Your task to perform on an android device: turn notification dots on Image 0: 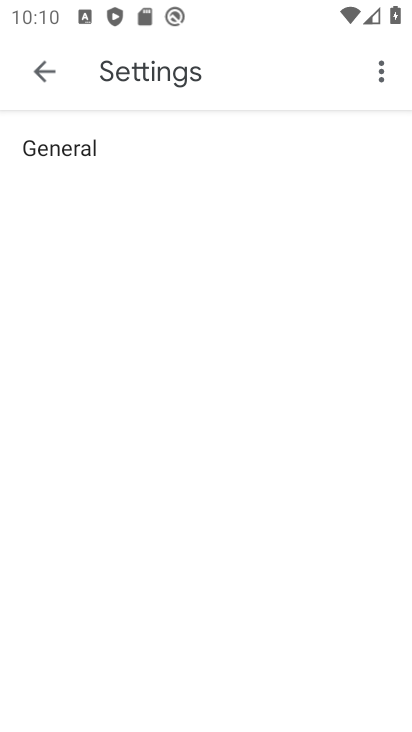
Step 0: press home button
Your task to perform on an android device: turn notification dots on Image 1: 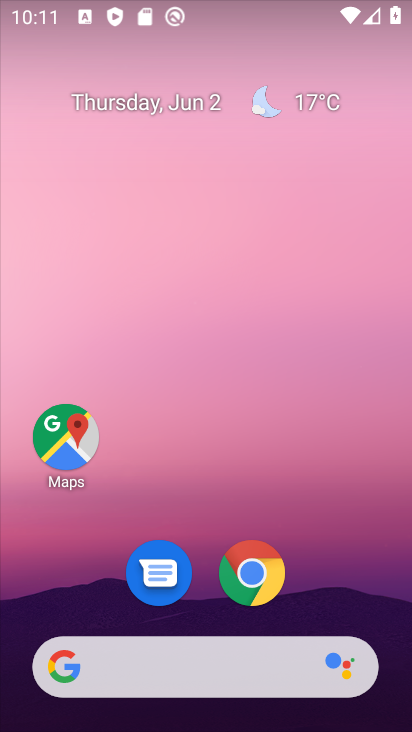
Step 1: drag from (354, 602) to (261, 91)
Your task to perform on an android device: turn notification dots on Image 2: 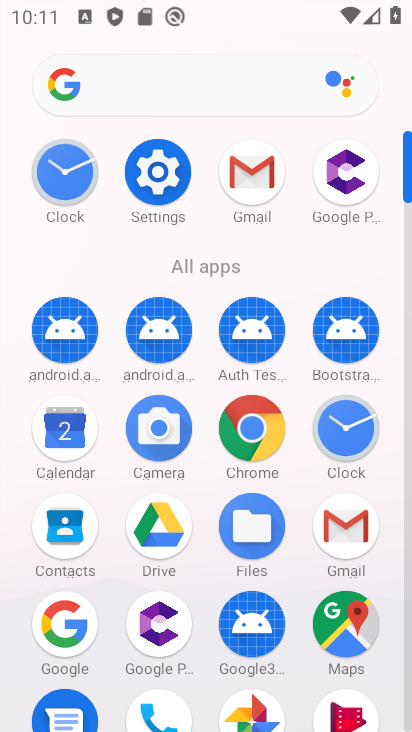
Step 2: click (172, 170)
Your task to perform on an android device: turn notification dots on Image 3: 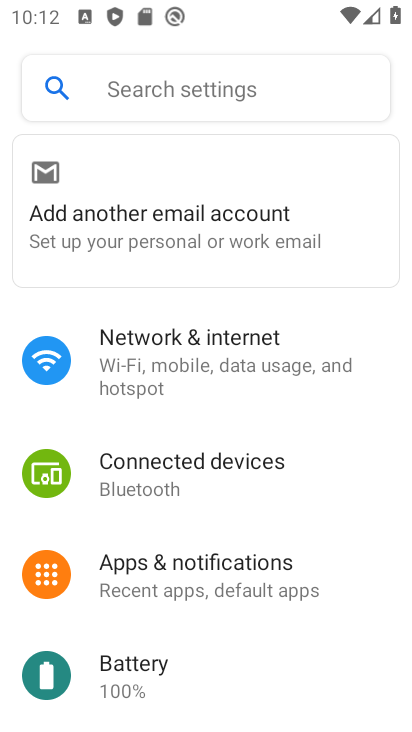
Step 3: click (270, 575)
Your task to perform on an android device: turn notification dots on Image 4: 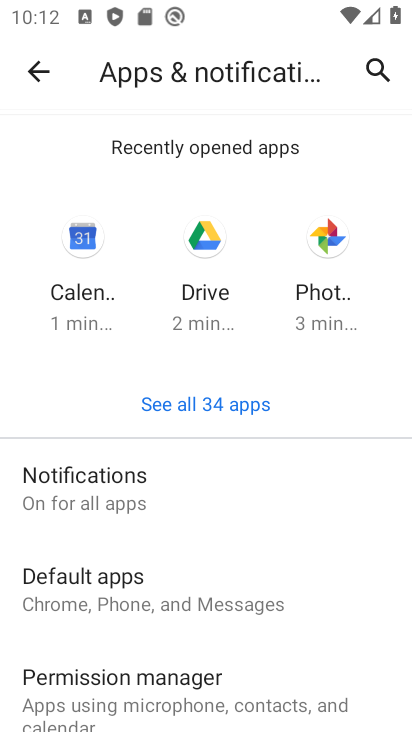
Step 4: click (48, 476)
Your task to perform on an android device: turn notification dots on Image 5: 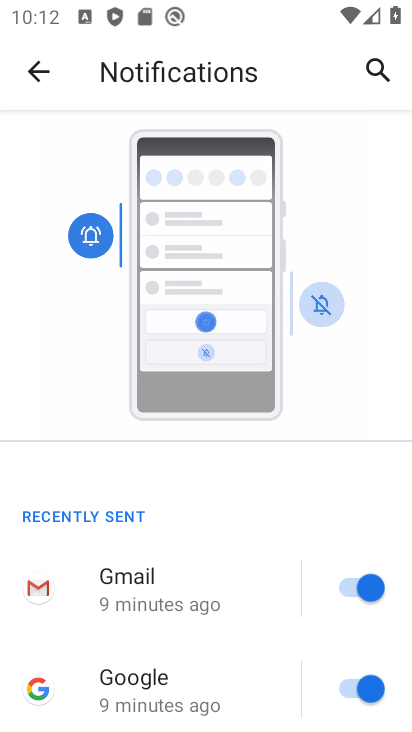
Step 5: drag from (215, 674) to (227, 248)
Your task to perform on an android device: turn notification dots on Image 6: 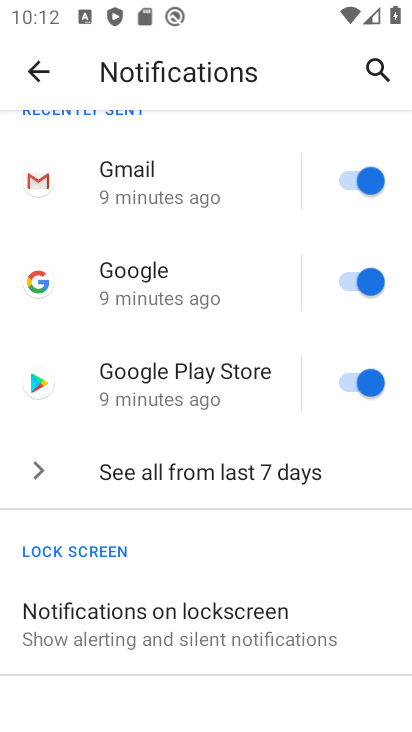
Step 6: drag from (271, 591) to (243, 153)
Your task to perform on an android device: turn notification dots on Image 7: 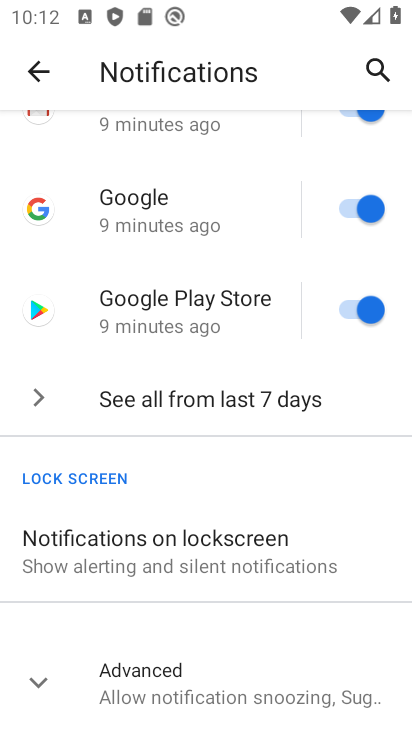
Step 7: click (162, 696)
Your task to perform on an android device: turn notification dots on Image 8: 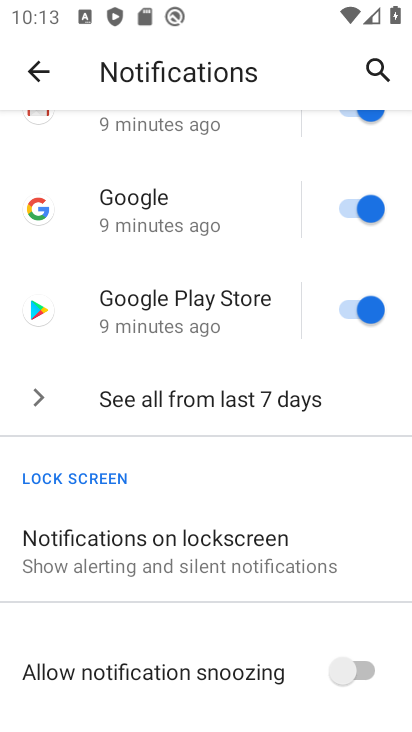
Step 8: task complete